Your task to perform on an android device: open sync settings in chrome Image 0: 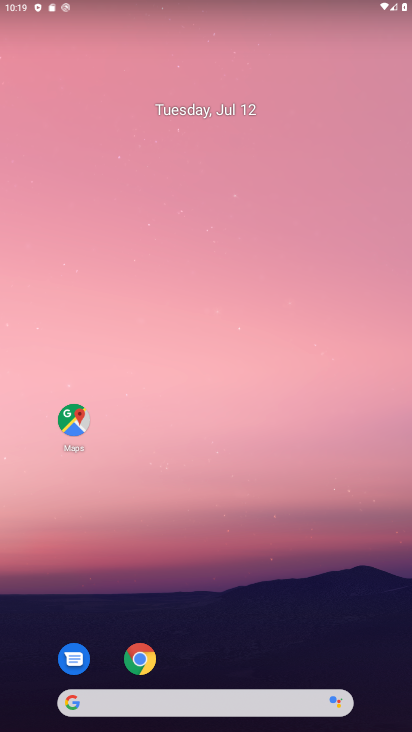
Step 0: click (127, 666)
Your task to perform on an android device: open sync settings in chrome Image 1: 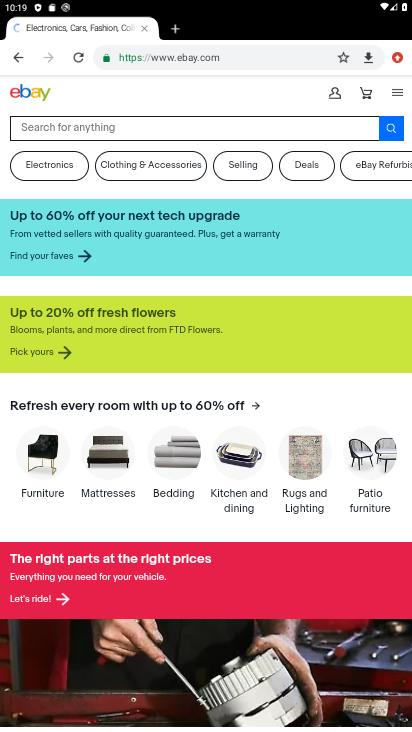
Step 1: click (398, 55)
Your task to perform on an android device: open sync settings in chrome Image 2: 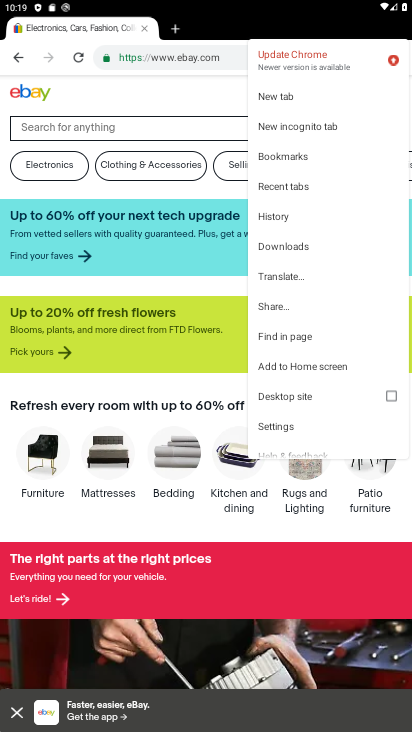
Step 2: click (278, 428)
Your task to perform on an android device: open sync settings in chrome Image 3: 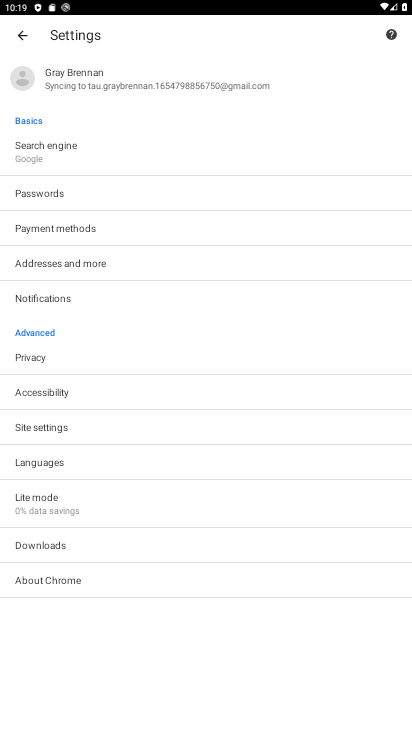
Step 3: click (125, 85)
Your task to perform on an android device: open sync settings in chrome Image 4: 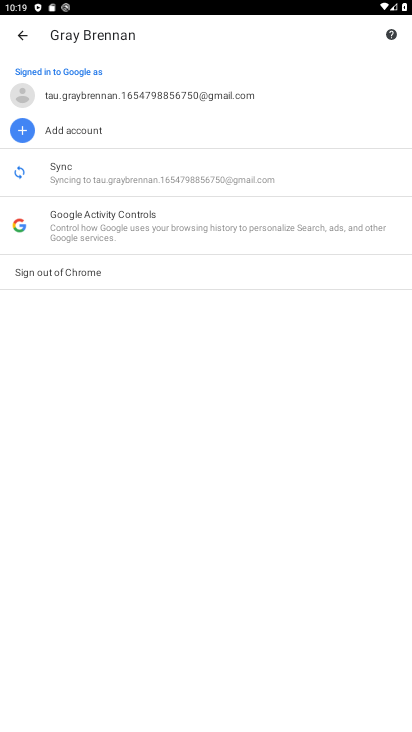
Step 4: click (65, 183)
Your task to perform on an android device: open sync settings in chrome Image 5: 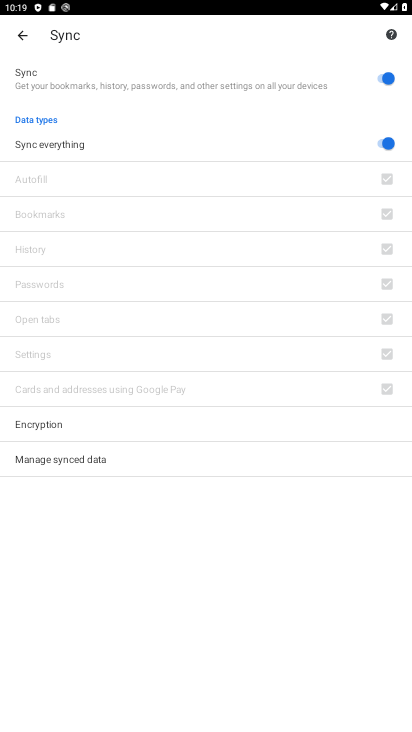
Step 5: task complete